Your task to perform on an android device: find which apps use the phone's location Image 0: 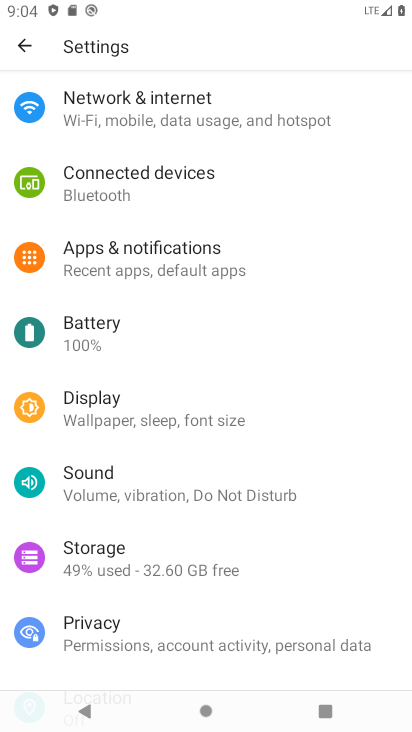
Step 0: drag from (175, 583) to (202, 1)
Your task to perform on an android device: find which apps use the phone's location Image 1: 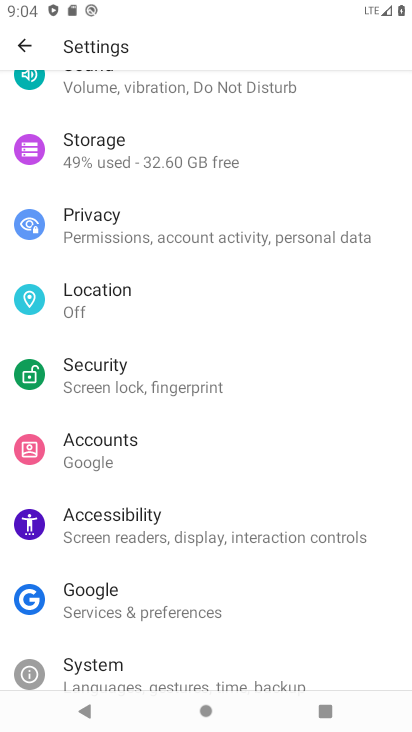
Step 1: click (178, 304)
Your task to perform on an android device: find which apps use the phone's location Image 2: 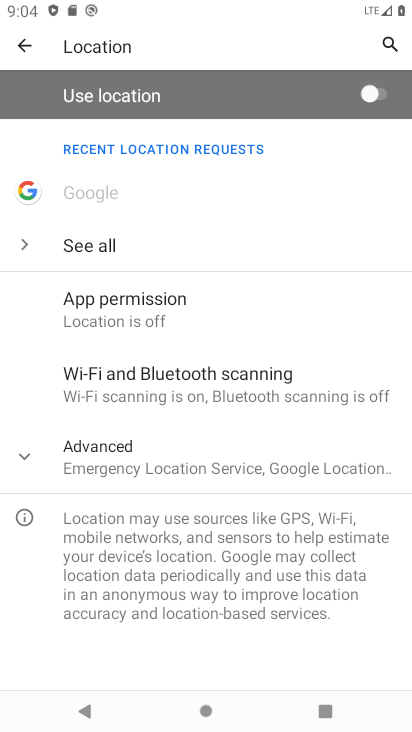
Step 2: click (96, 241)
Your task to perform on an android device: find which apps use the phone's location Image 3: 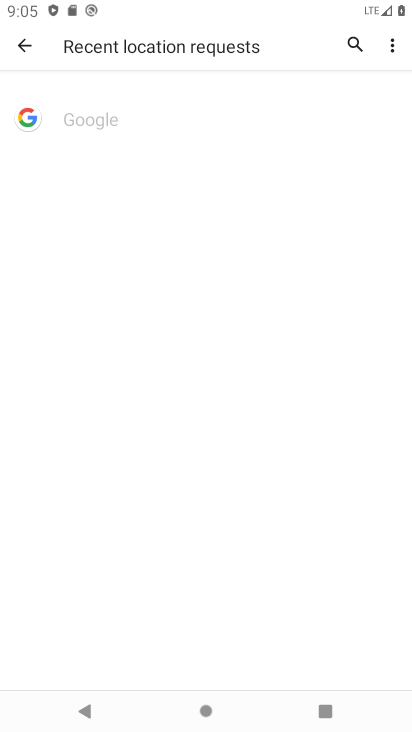
Step 3: task complete